Your task to perform on an android device: turn off sleep mode Image 0: 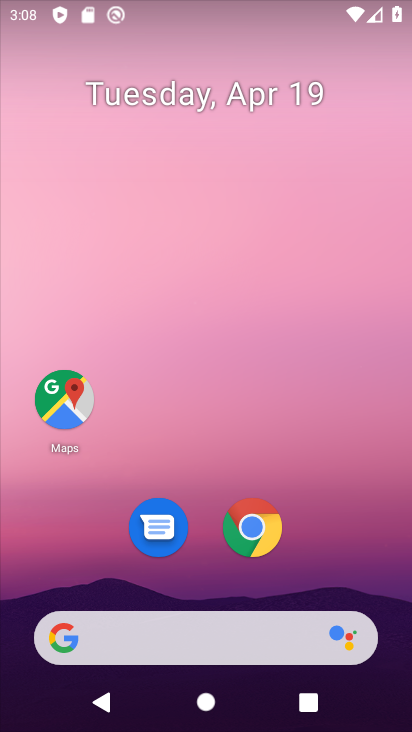
Step 0: drag from (334, 398) to (313, 120)
Your task to perform on an android device: turn off sleep mode Image 1: 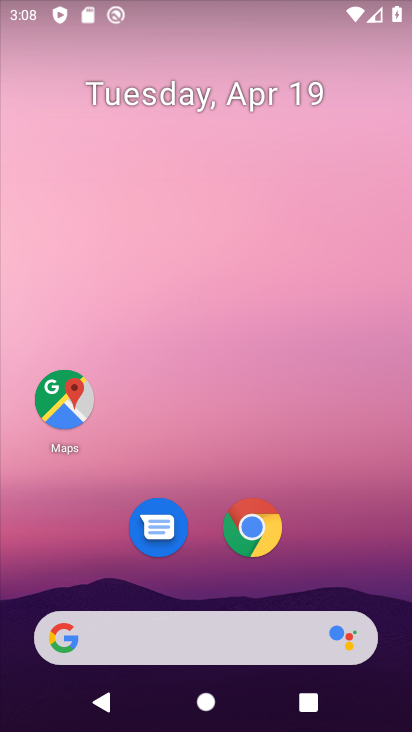
Step 1: drag from (324, 534) to (330, 185)
Your task to perform on an android device: turn off sleep mode Image 2: 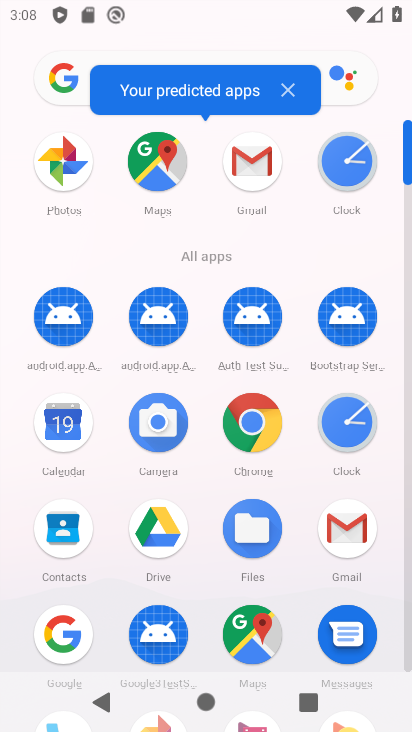
Step 2: drag from (299, 553) to (328, 221)
Your task to perform on an android device: turn off sleep mode Image 3: 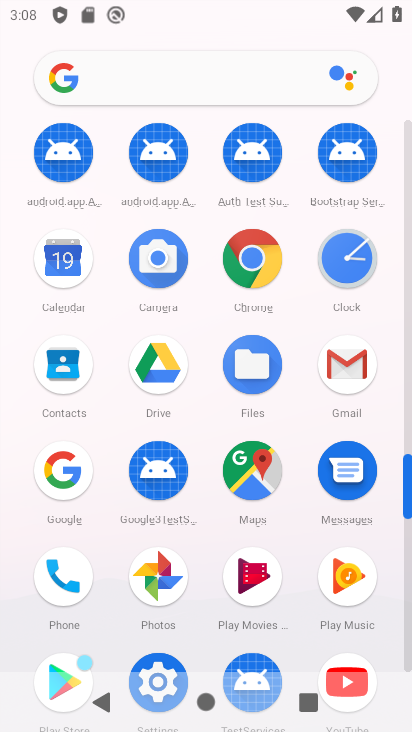
Step 3: drag from (195, 635) to (237, 352)
Your task to perform on an android device: turn off sleep mode Image 4: 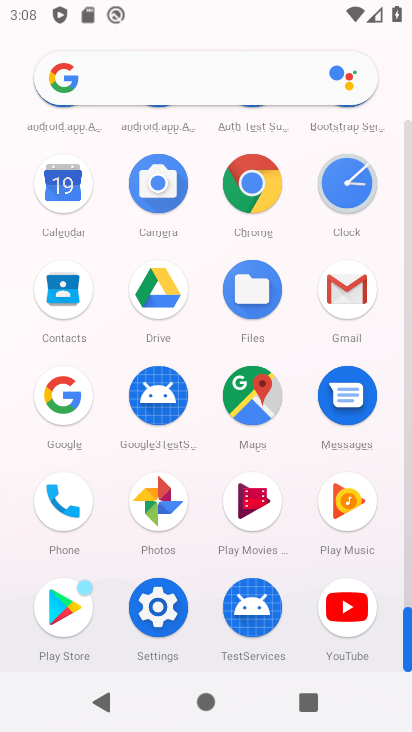
Step 4: click (158, 606)
Your task to perform on an android device: turn off sleep mode Image 5: 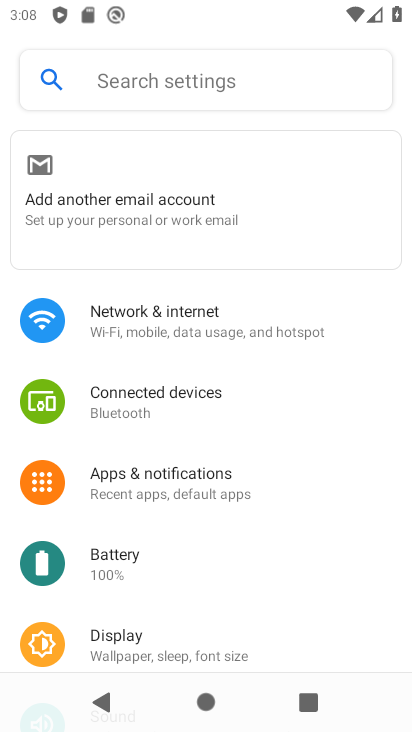
Step 5: click (148, 644)
Your task to perform on an android device: turn off sleep mode Image 6: 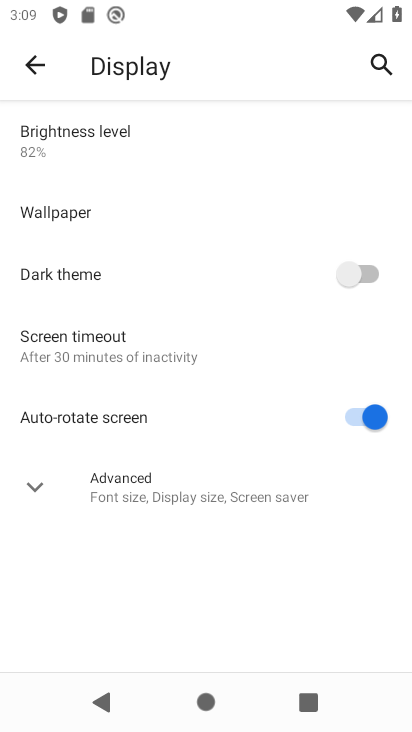
Step 6: click (169, 372)
Your task to perform on an android device: turn off sleep mode Image 7: 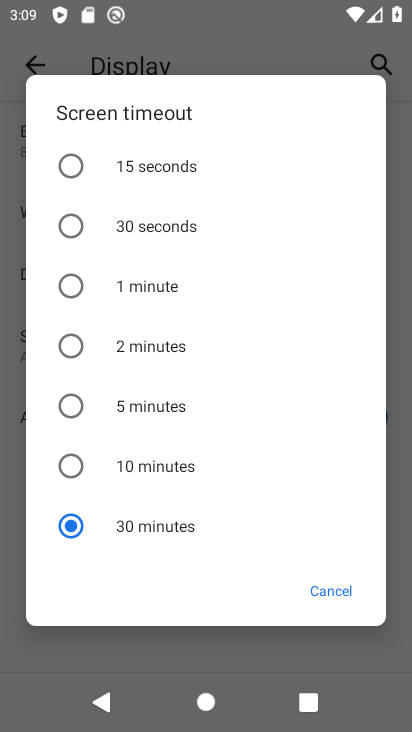
Step 7: task complete